Your task to perform on an android device: turn off translation in the chrome app Image 0: 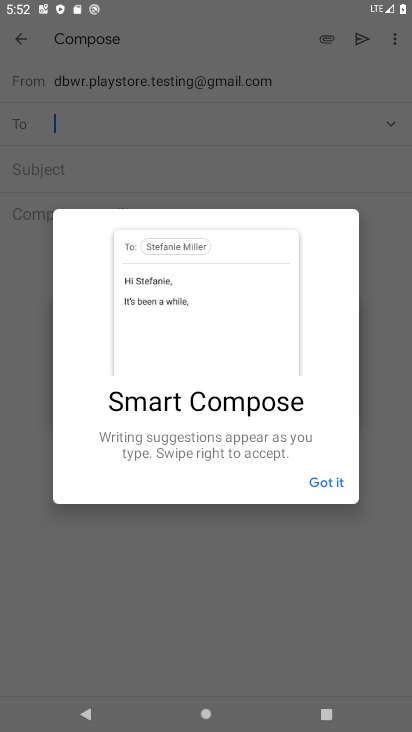
Step 0: press home button
Your task to perform on an android device: turn off translation in the chrome app Image 1: 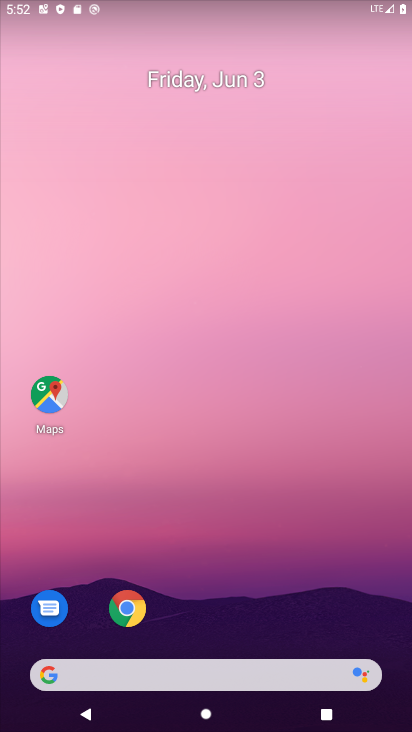
Step 1: click (132, 611)
Your task to perform on an android device: turn off translation in the chrome app Image 2: 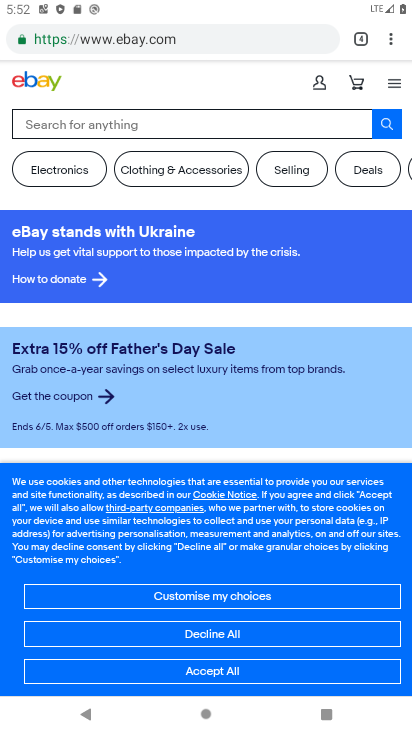
Step 2: click (389, 33)
Your task to perform on an android device: turn off translation in the chrome app Image 3: 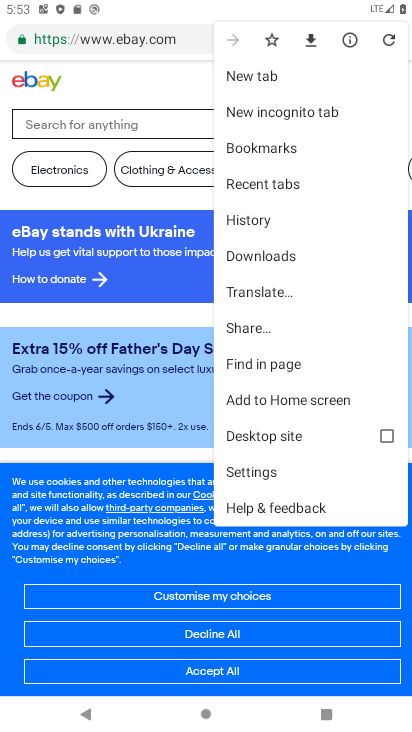
Step 3: click (275, 283)
Your task to perform on an android device: turn off translation in the chrome app Image 4: 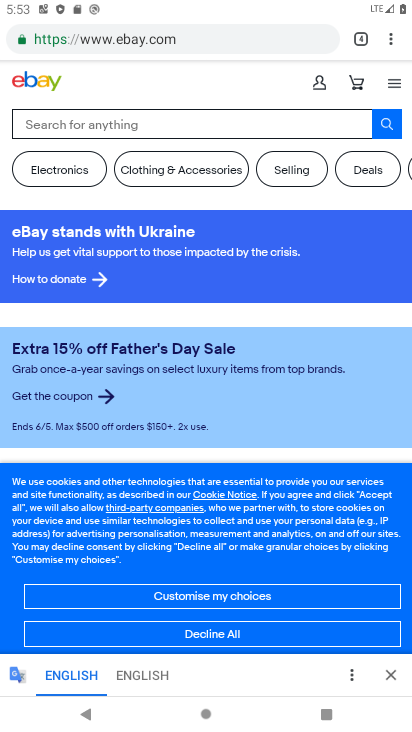
Step 4: click (357, 672)
Your task to perform on an android device: turn off translation in the chrome app Image 5: 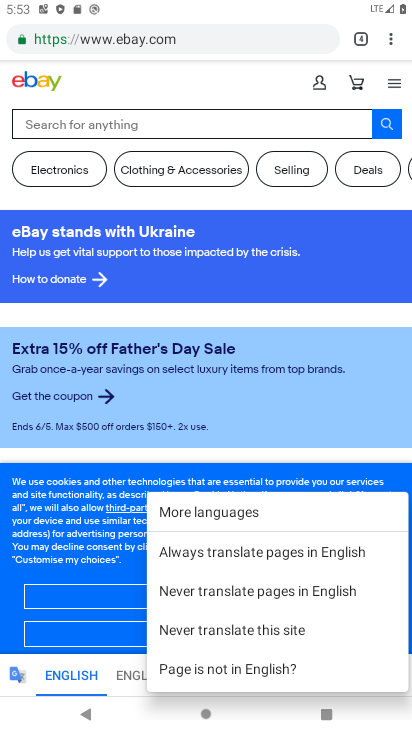
Step 5: click (278, 626)
Your task to perform on an android device: turn off translation in the chrome app Image 6: 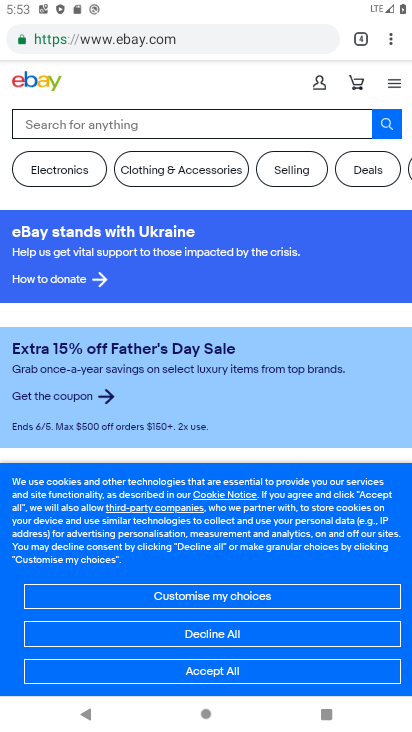
Step 6: task complete